Your task to perform on an android device: open app "Etsy: Buy & Sell Unique Items" (install if not already installed) Image 0: 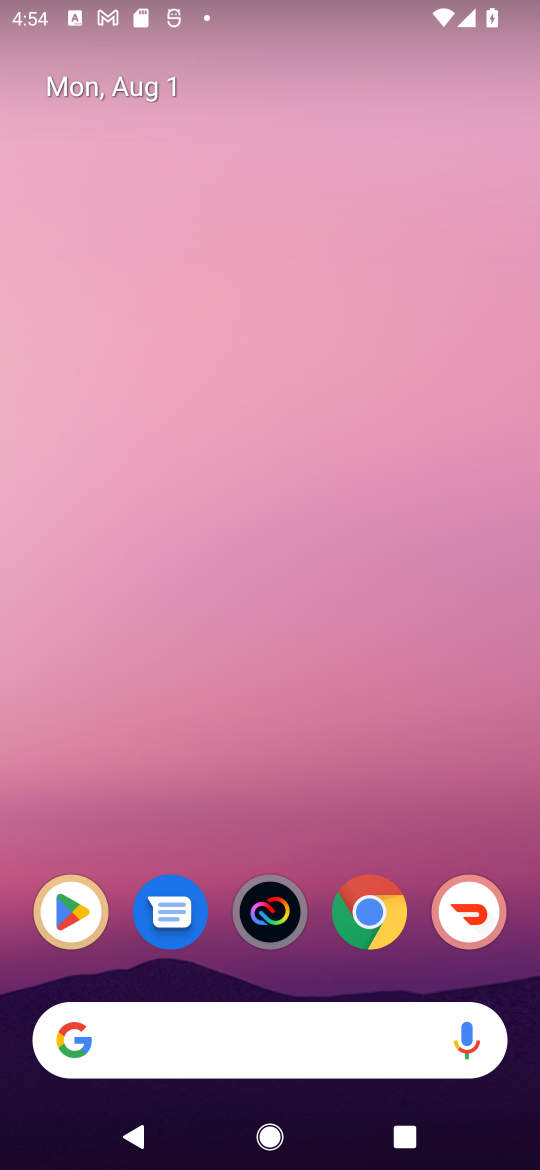
Step 0: click (83, 923)
Your task to perform on an android device: open app "Etsy: Buy & Sell Unique Items" (install if not already installed) Image 1: 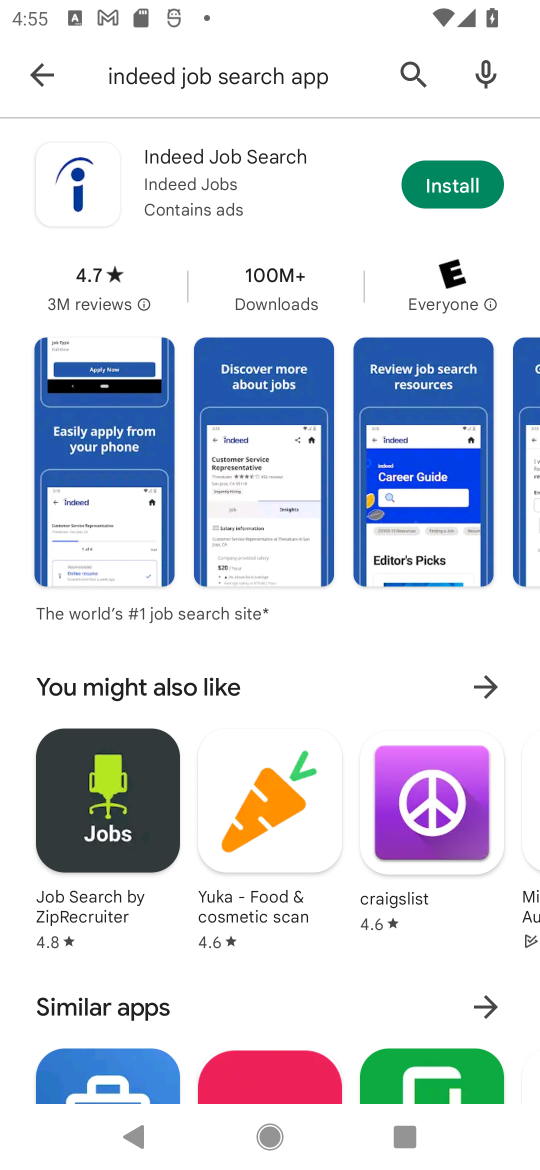
Step 1: click (410, 60)
Your task to perform on an android device: open app "Etsy: Buy & Sell Unique Items" (install if not already installed) Image 2: 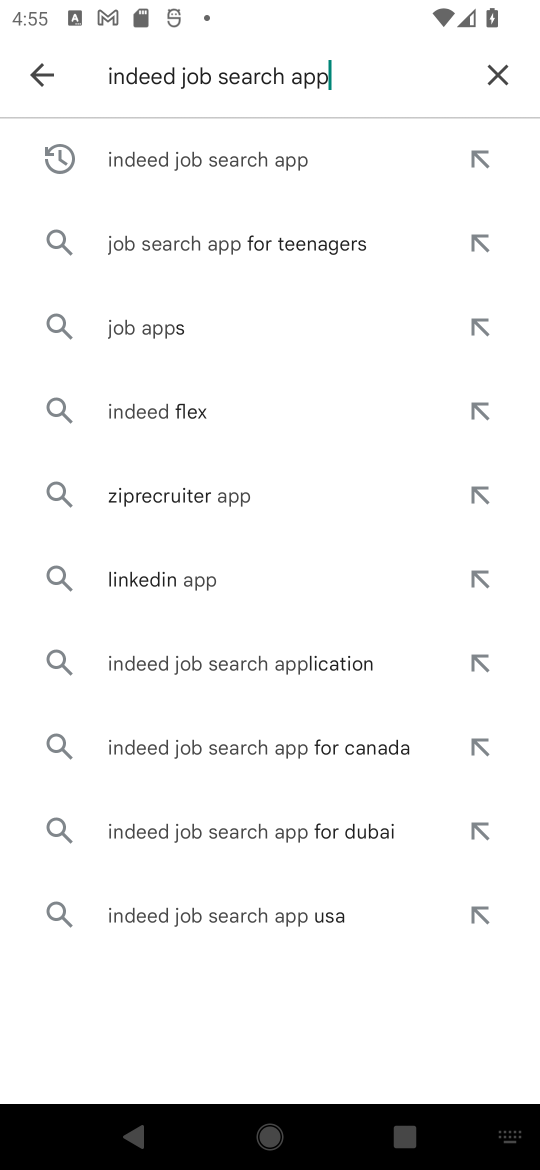
Step 2: click (497, 81)
Your task to perform on an android device: open app "Etsy: Buy & Sell Unique Items" (install if not already installed) Image 3: 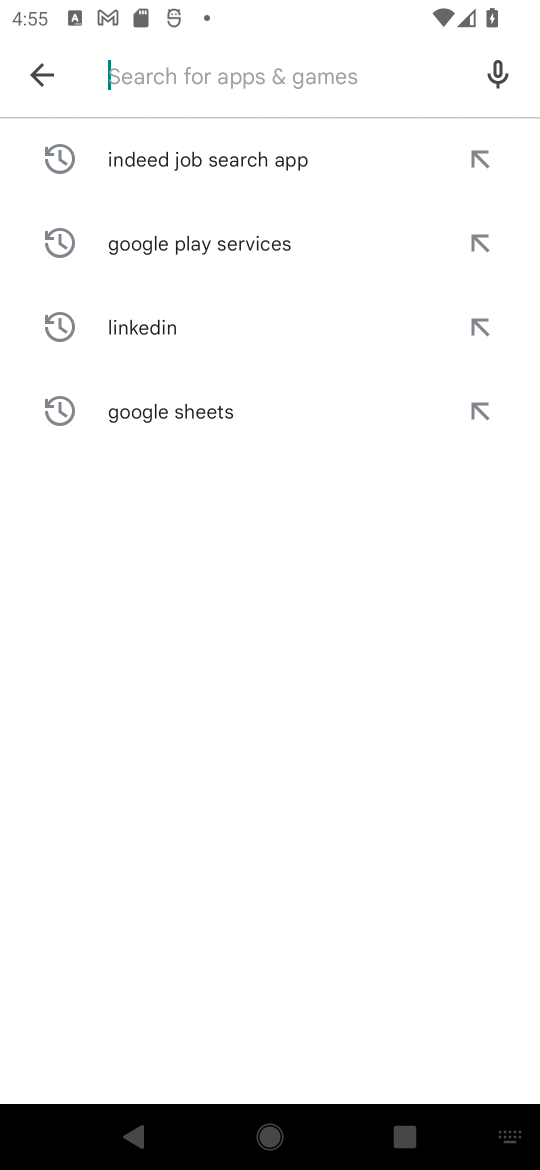
Step 3: type "Etsy: Buy & Sell Unique Items"
Your task to perform on an android device: open app "Etsy: Buy & Sell Unique Items" (install if not already installed) Image 4: 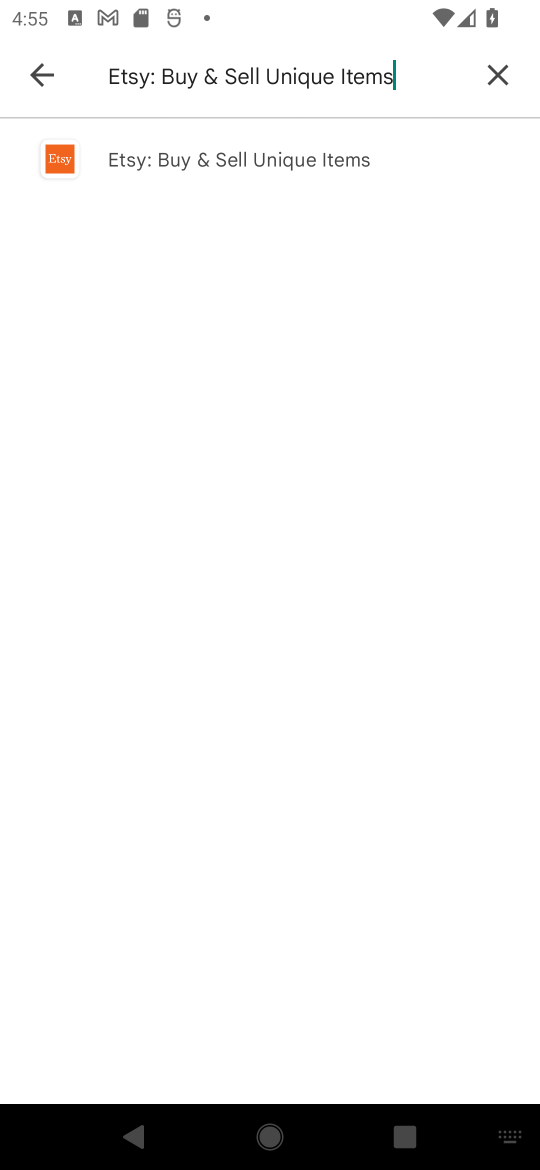
Step 4: click (347, 165)
Your task to perform on an android device: open app "Etsy: Buy & Sell Unique Items" (install if not already installed) Image 5: 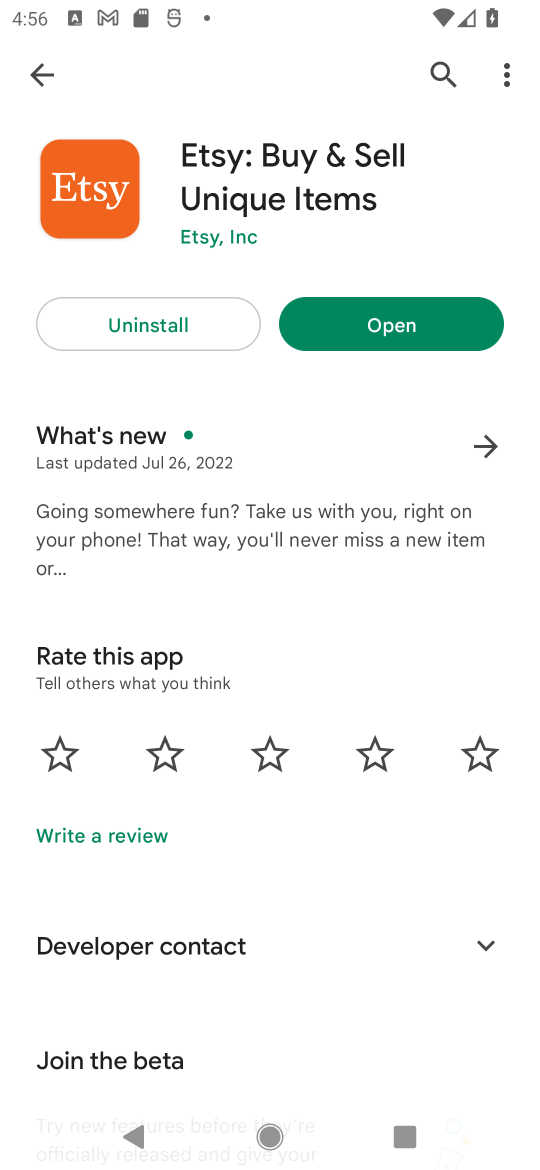
Step 5: click (377, 330)
Your task to perform on an android device: open app "Etsy: Buy & Sell Unique Items" (install if not already installed) Image 6: 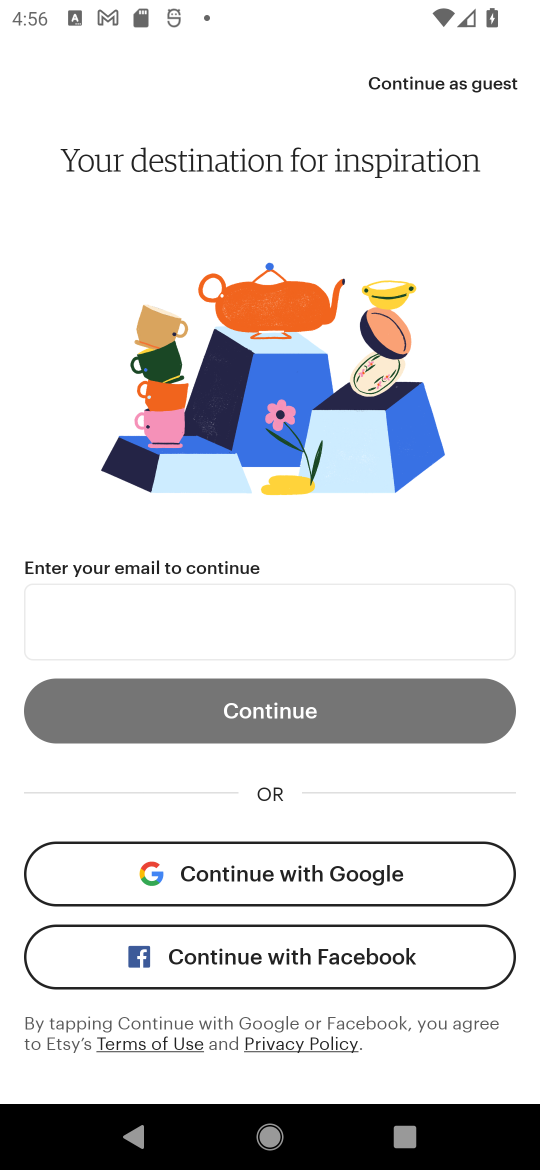
Step 6: task complete